Your task to perform on an android device: Open Wikipedia Image 0: 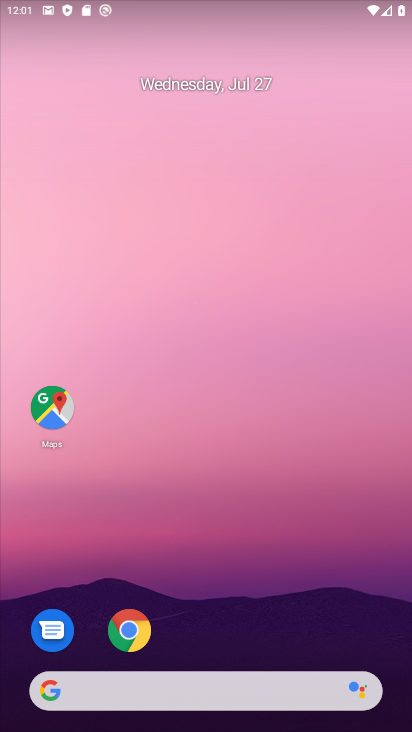
Step 0: click (118, 625)
Your task to perform on an android device: Open Wikipedia Image 1: 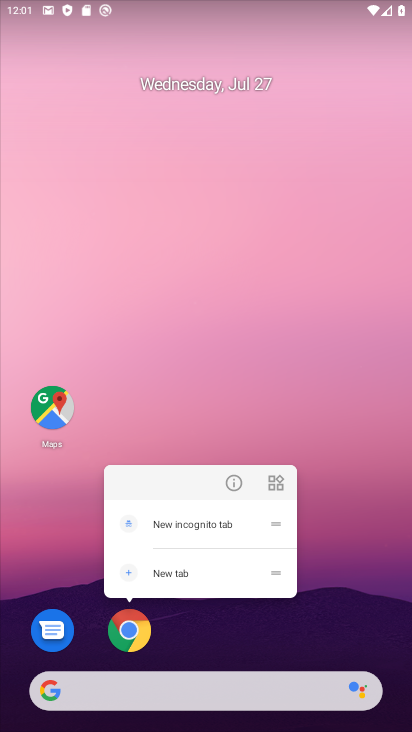
Step 1: click (142, 628)
Your task to perform on an android device: Open Wikipedia Image 2: 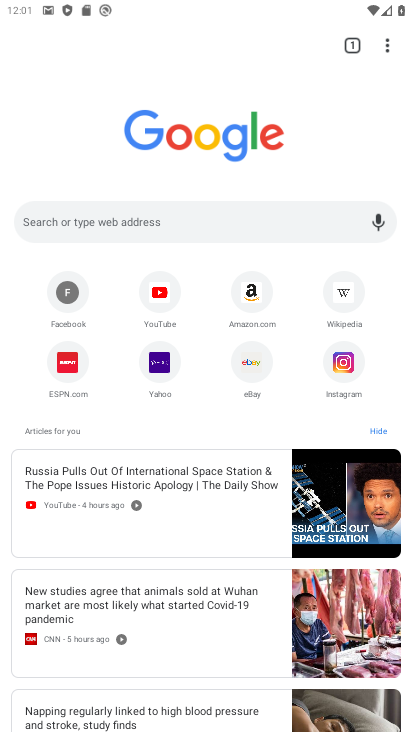
Step 2: click (337, 305)
Your task to perform on an android device: Open Wikipedia Image 3: 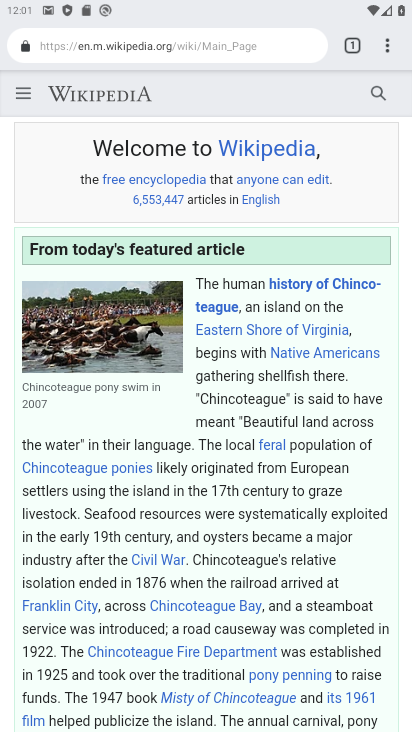
Step 3: task complete